Your task to perform on an android device: turn off translation in the chrome app Image 0: 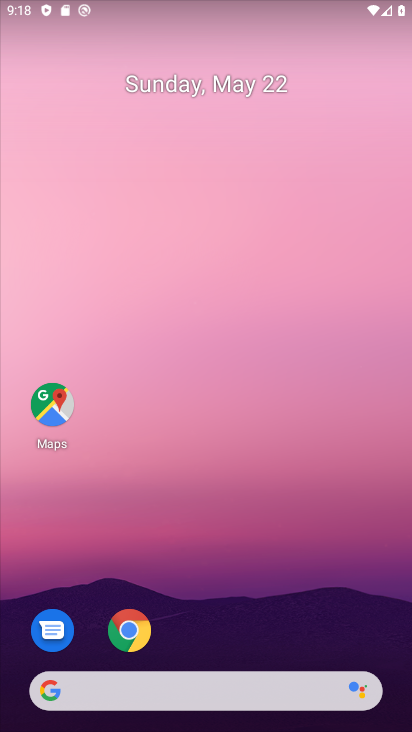
Step 0: click (141, 636)
Your task to perform on an android device: turn off translation in the chrome app Image 1: 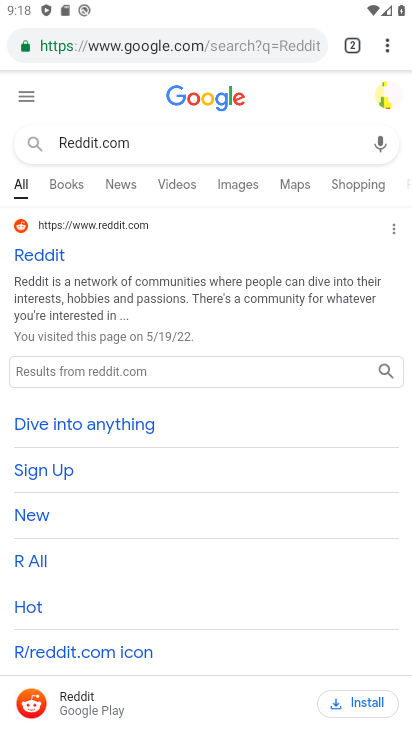
Step 1: click (389, 53)
Your task to perform on an android device: turn off translation in the chrome app Image 2: 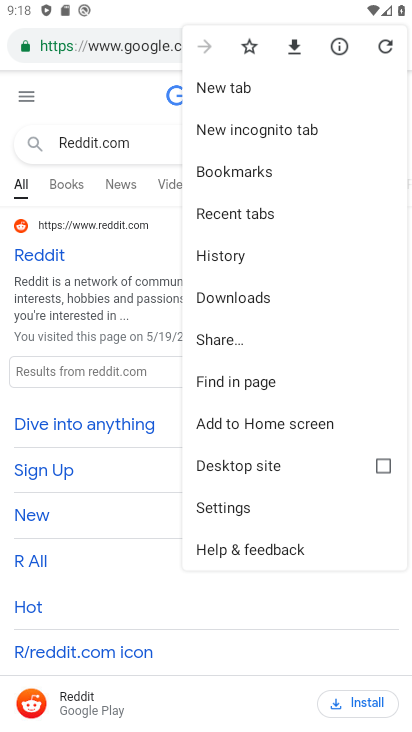
Step 2: click (211, 514)
Your task to perform on an android device: turn off translation in the chrome app Image 3: 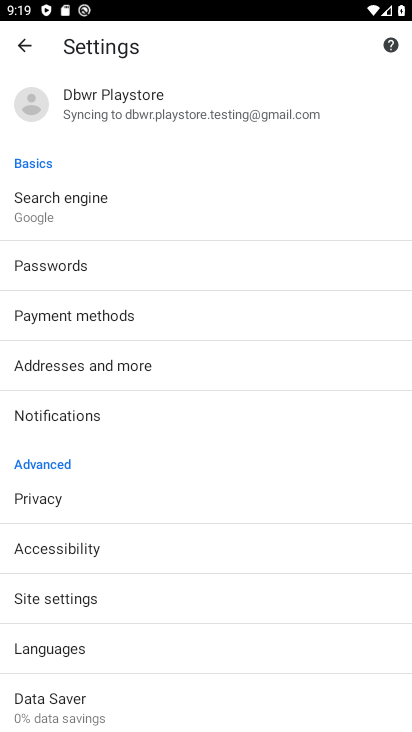
Step 3: drag from (208, 688) to (206, 433)
Your task to perform on an android device: turn off translation in the chrome app Image 4: 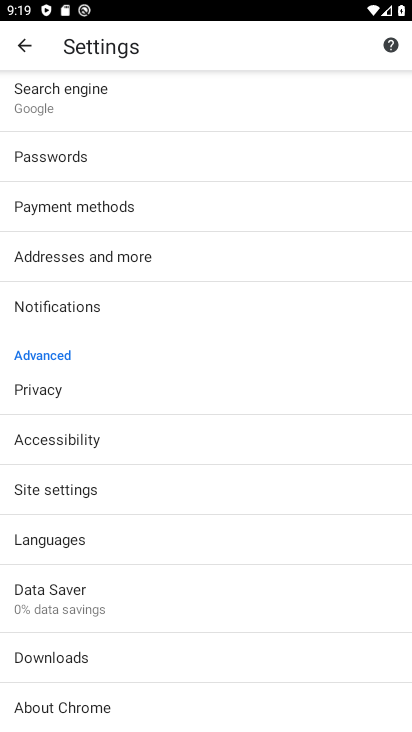
Step 4: click (53, 541)
Your task to perform on an android device: turn off translation in the chrome app Image 5: 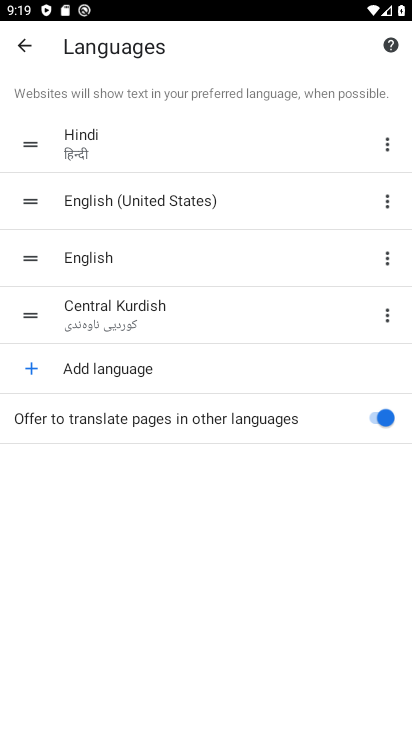
Step 5: click (372, 418)
Your task to perform on an android device: turn off translation in the chrome app Image 6: 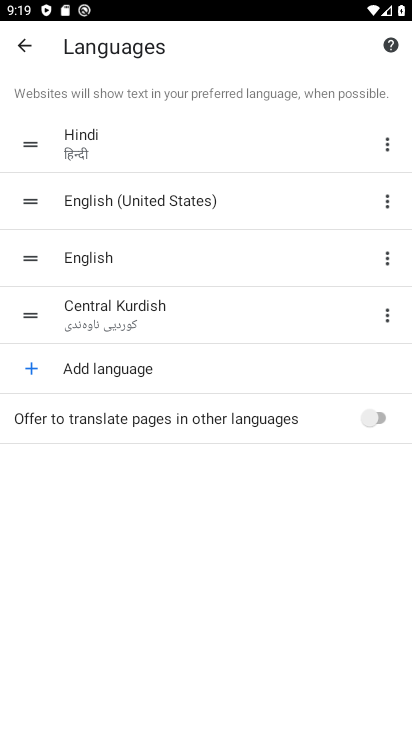
Step 6: task complete